Your task to perform on an android device: Open Google Maps Image 0: 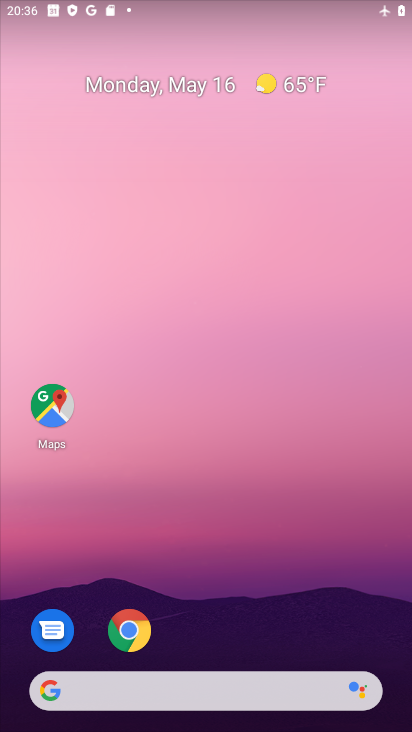
Step 0: click (46, 407)
Your task to perform on an android device: Open Google Maps Image 1: 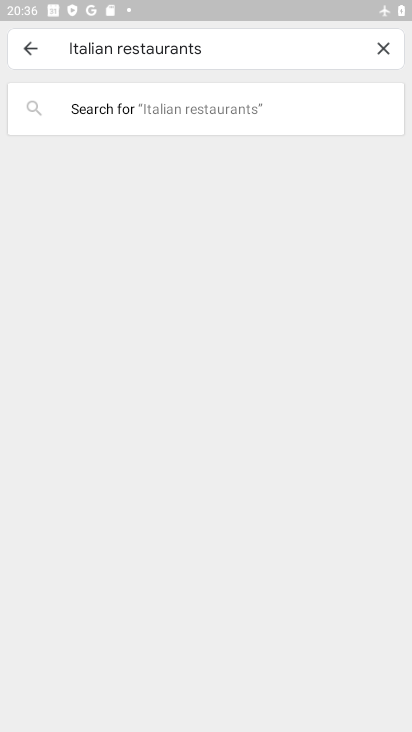
Step 1: task complete